Your task to perform on an android device: open the mobile data screen to see how much data has been used Image 0: 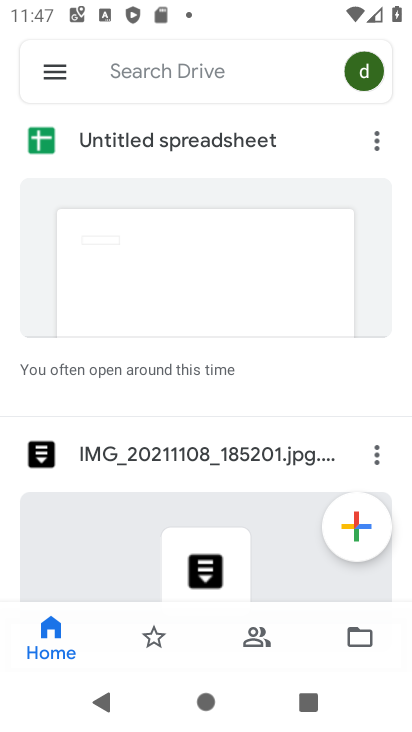
Step 0: press home button
Your task to perform on an android device: open the mobile data screen to see how much data has been used Image 1: 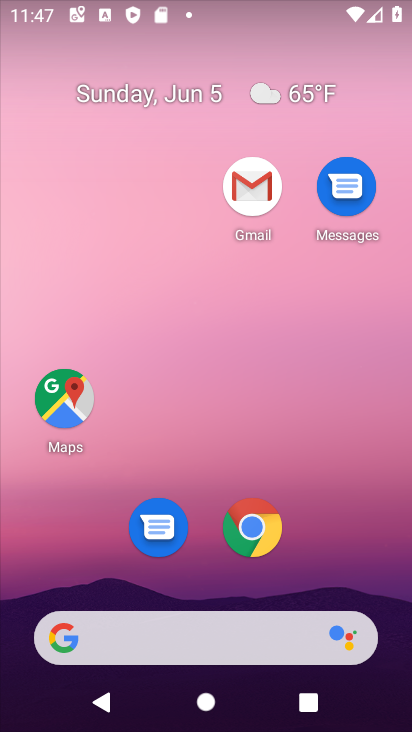
Step 1: drag from (313, 541) to (289, 21)
Your task to perform on an android device: open the mobile data screen to see how much data has been used Image 2: 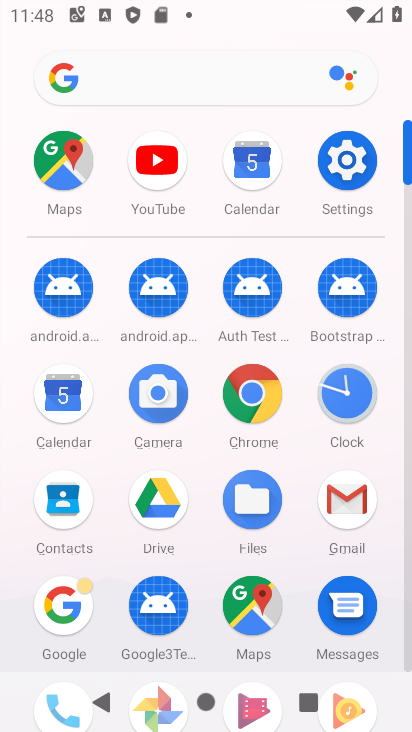
Step 2: click (352, 148)
Your task to perform on an android device: open the mobile data screen to see how much data has been used Image 3: 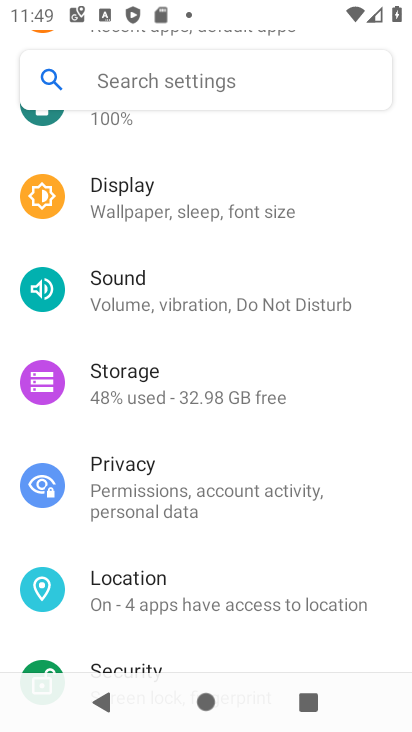
Step 3: drag from (301, 182) to (208, 569)
Your task to perform on an android device: open the mobile data screen to see how much data has been used Image 4: 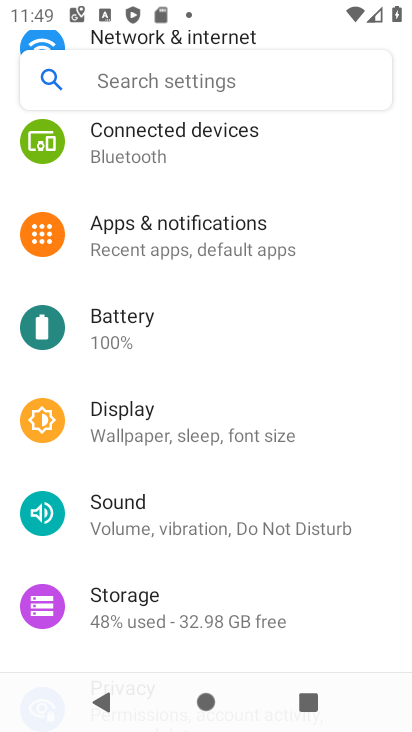
Step 4: drag from (229, 248) to (245, 715)
Your task to perform on an android device: open the mobile data screen to see how much data has been used Image 5: 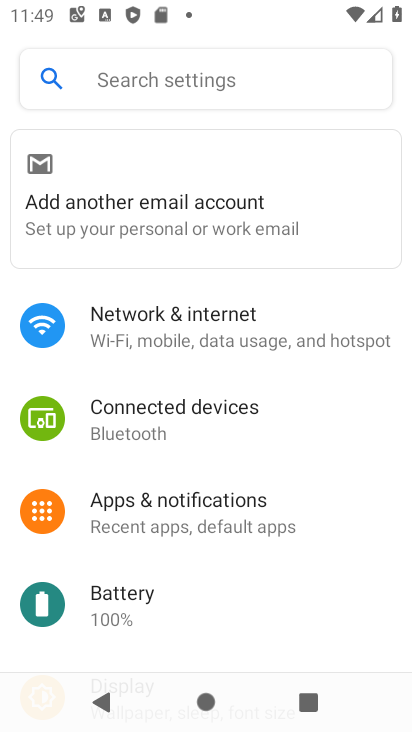
Step 5: click (202, 336)
Your task to perform on an android device: open the mobile data screen to see how much data has been used Image 6: 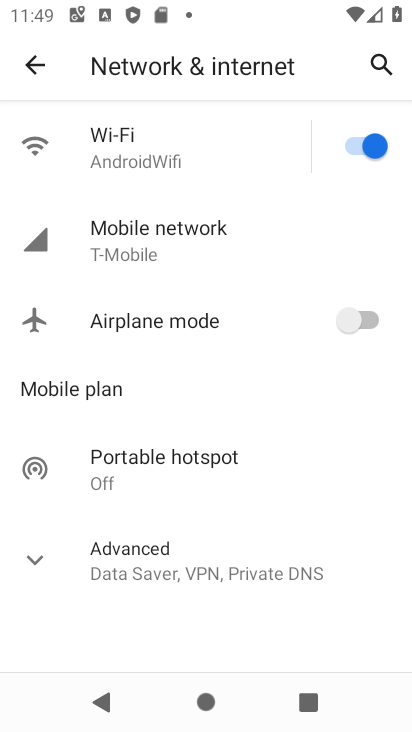
Step 6: click (185, 244)
Your task to perform on an android device: open the mobile data screen to see how much data has been used Image 7: 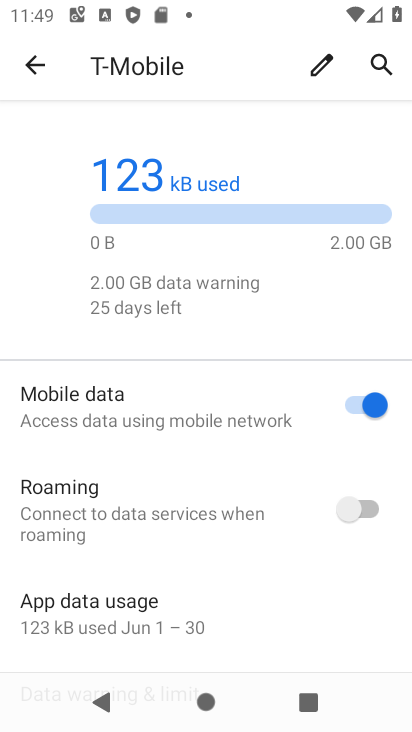
Step 7: task complete